Your task to perform on an android device: change text size in settings app Image 0: 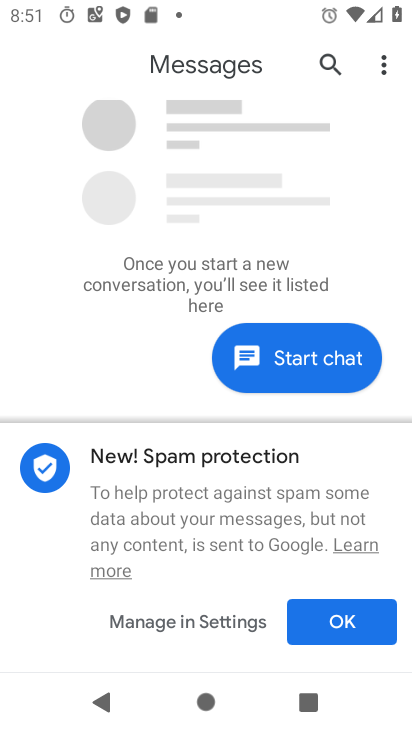
Step 0: press home button
Your task to perform on an android device: change text size in settings app Image 1: 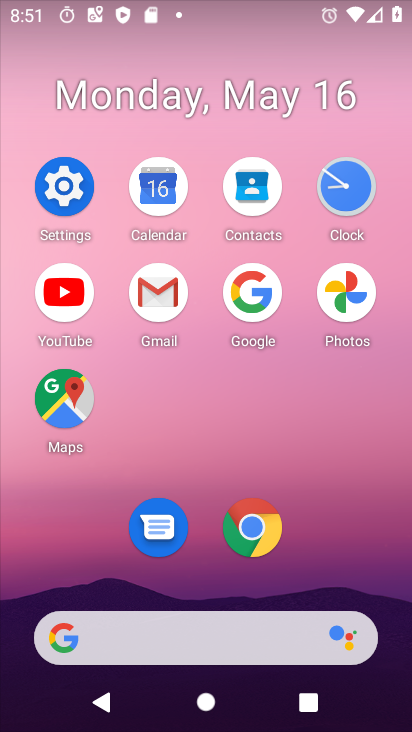
Step 1: click (69, 191)
Your task to perform on an android device: change text size in settings app Image 2: 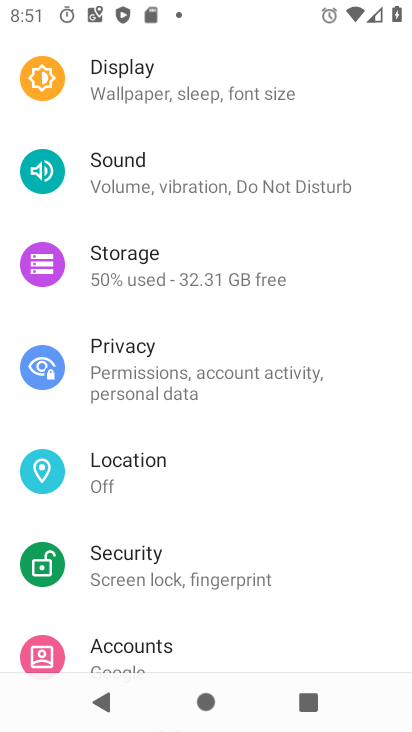
Step 2: click (248, 77)
Your task to perform on an android device: change text size in settings app Image 3: 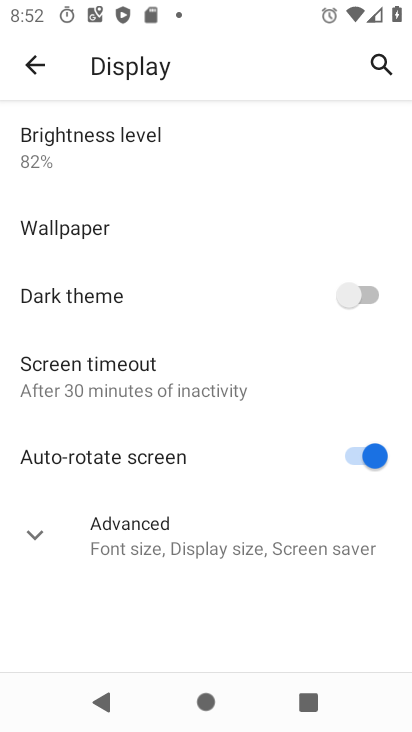
Step 3: drag from (240, 626) to (249, 283)
Your task to perform on an android device: change text size in settings app Image 4: 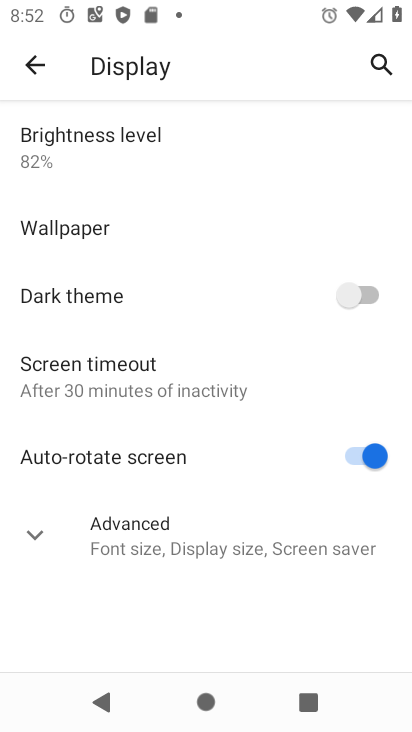
Step 4: click (200, 540)
Your task to perform on an android device: change text size in settings app Image 5: 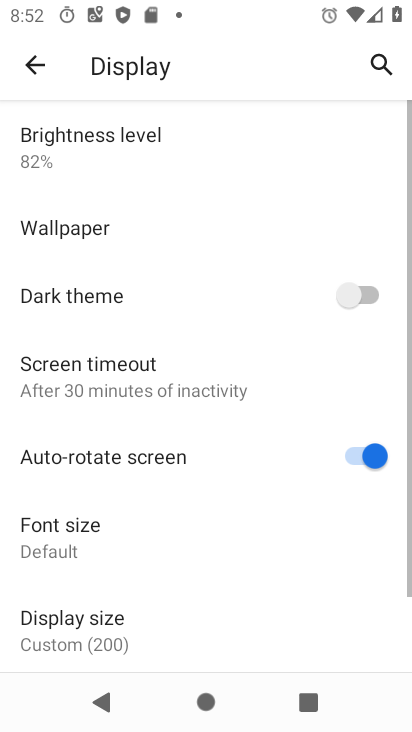
Step 5: drag from (284, 607) to (259, 290)
Your task to perform on an android device: change text size in settings app Image 6: 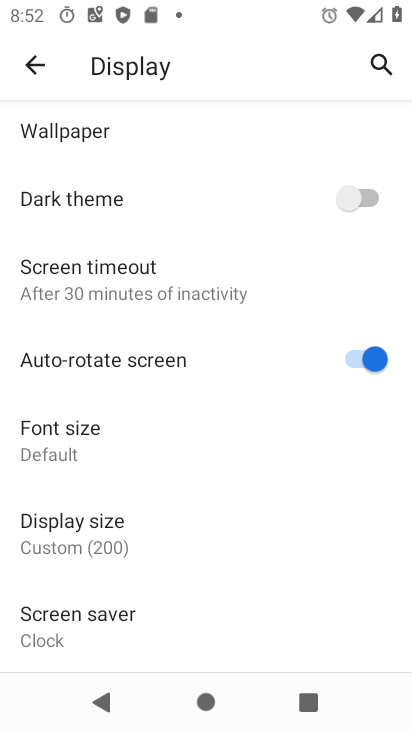
Step 6: click (129, 428)
Your task to perform on an android device: change text size in settings app Image 7: 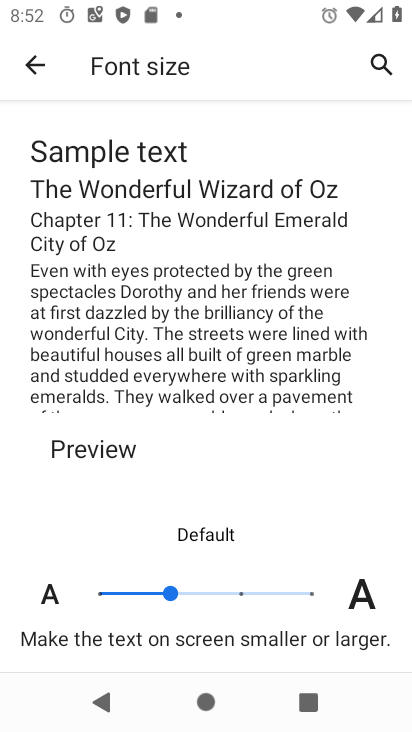
Step 7: click (238, 590)
Your task to perform on an android device: change text size in settings app Image 8: 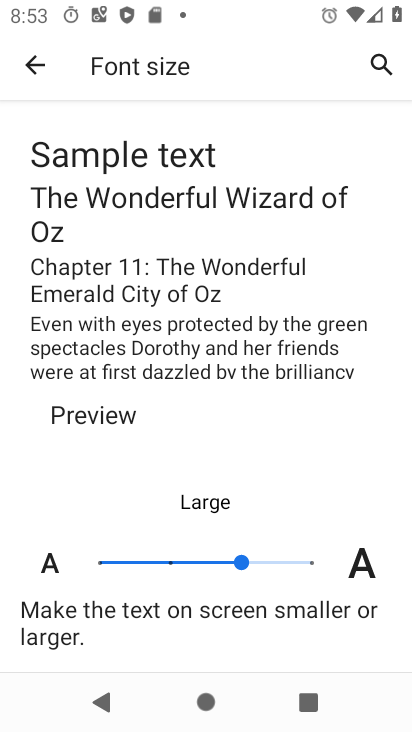
Step 8: task complete